Your task to perform on an android device: Toggle the flashlight Image 0: 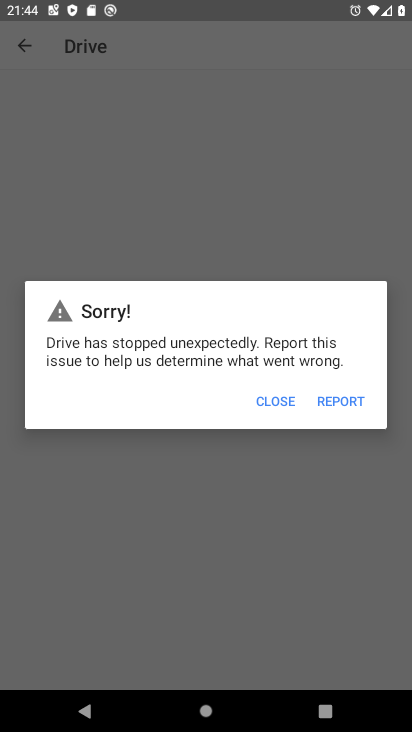
Step 0: press home button
Your task to perform on an android device: Toggle the flashlight Image 1: 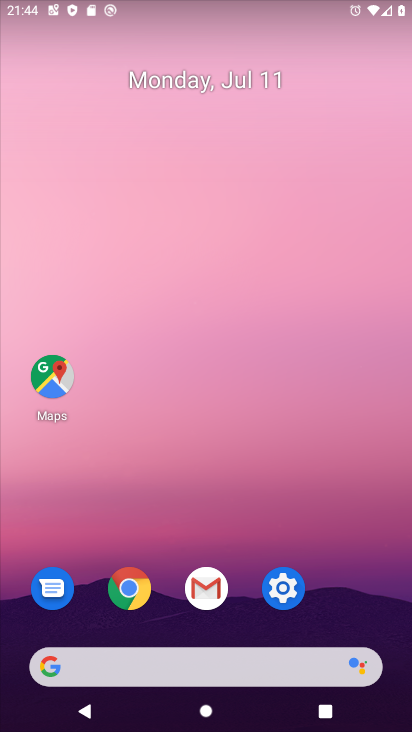
Step 1: click (282, 588)
Your task to perform on an android device: Toggle the flashlight Image 2: 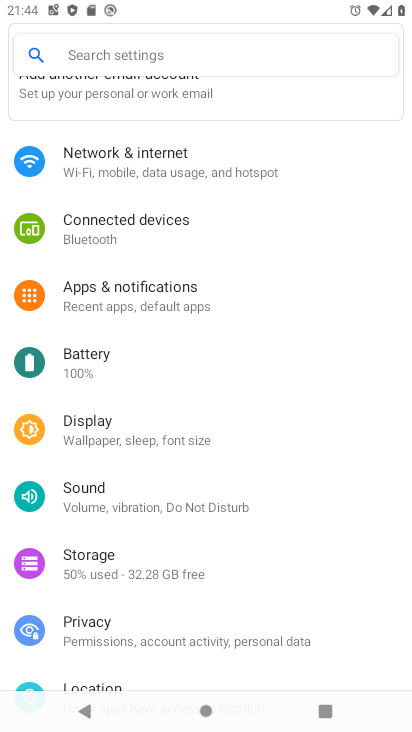
Step 2: click (126, 54)
Your task to perform on an android device: Toggle the flashlight Image 3: 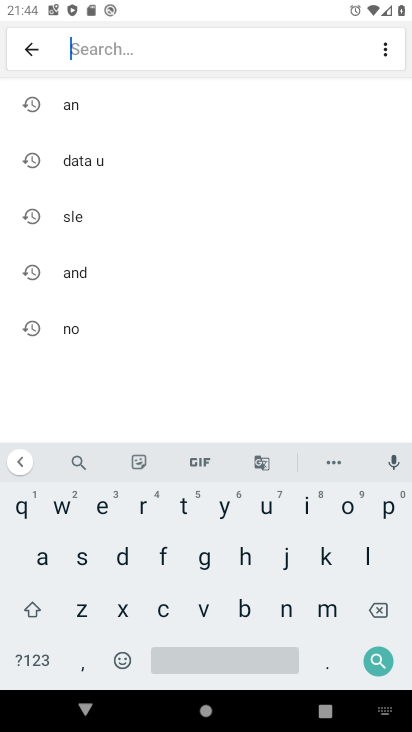
Step 3: click (161, 552)
Your task to perform on an android device: Toggle the flashlight Image 4: 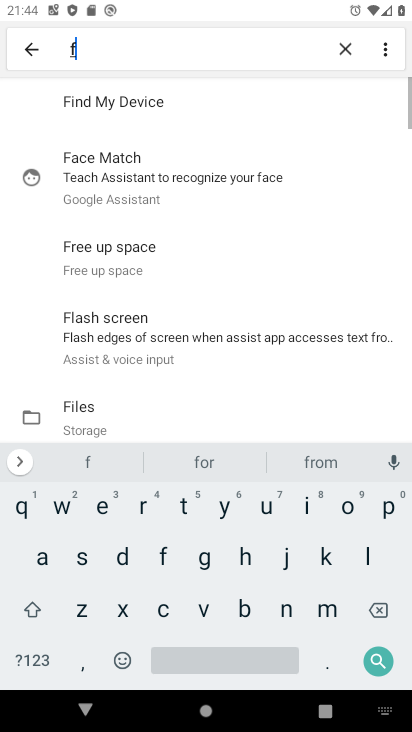
Step 4: click (372, 559)
Your task to perform on an android device: Toggle the flashlight Image 5: 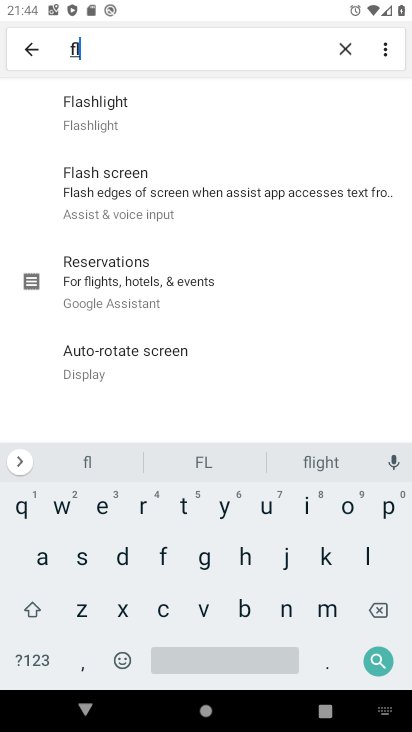
Step 5: click (152, 109)
Your task to perform on an android device: Toggle the flashlight Image 6: 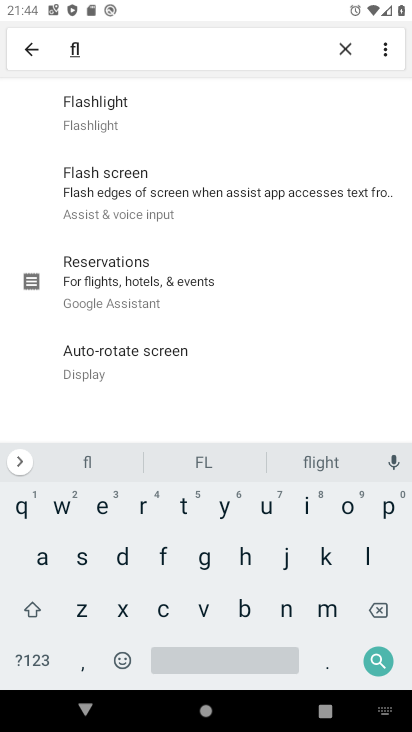
Step 6: click (152, 109)
Your task to perform on an android device: Toggle the flashlight Image 7: 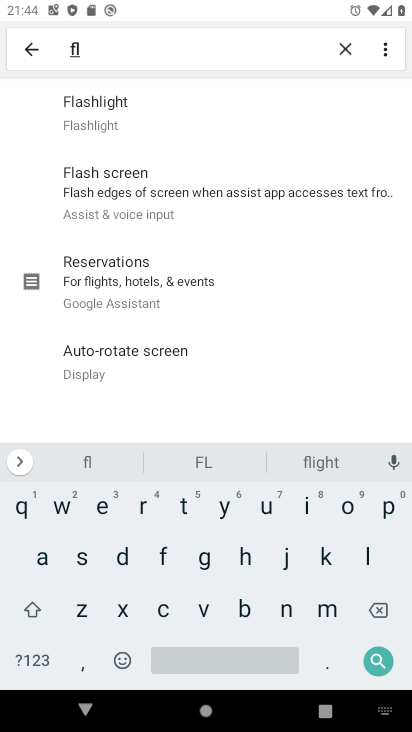
Step 7: task complete